Your task to perform on an android device: turn off translation in the chrome app Image 0: 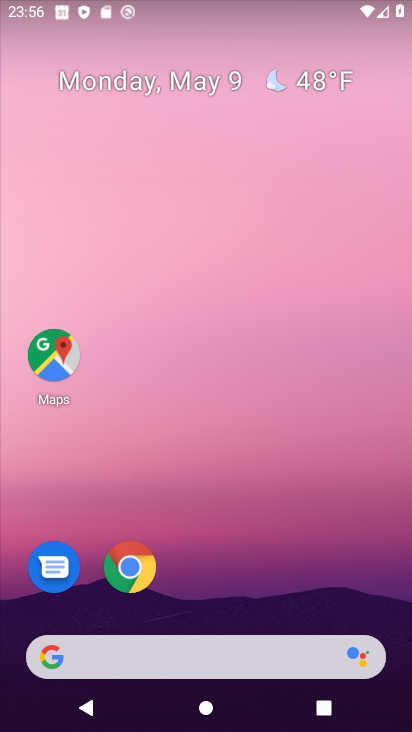
Step 0: click (132, 564)
Your task to perform on an android device: turn off translation in the chrome app Image 1: 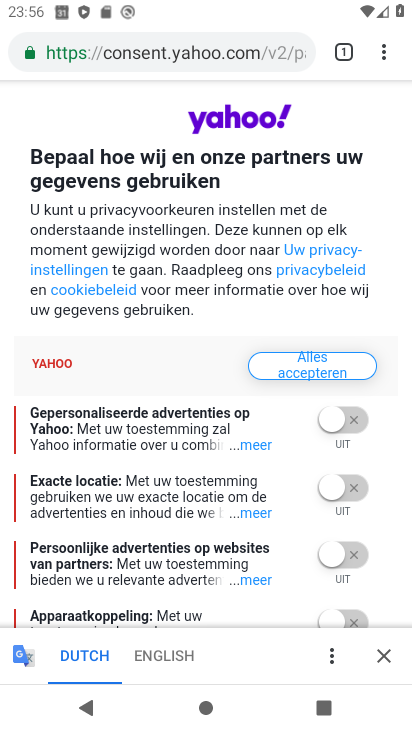
Step 1: click (381, 52)
Your task to perform on an android device: turn off translation in the chrome app Image 2: 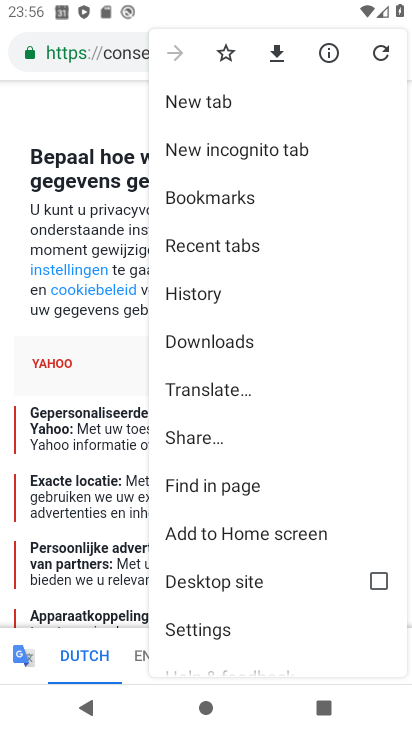
Step 2: click (212, 629)
Your task to perform on an android device: turn off translation in the chrome app Image 3: 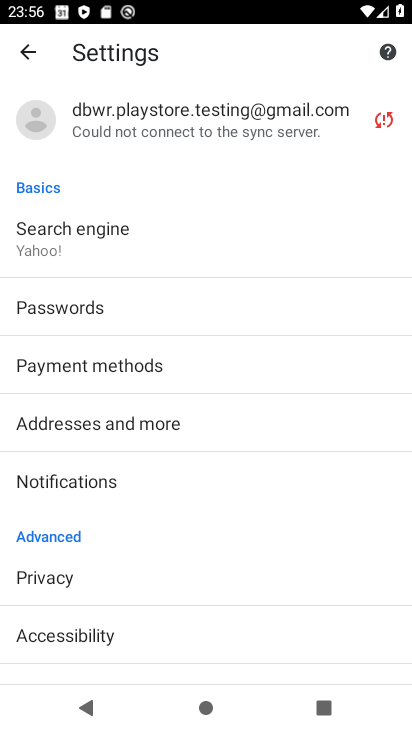
Step 3: drag from (116, 548) to (160, 434)
Your task to perform on an android device: turn off translation in the chrome app Image 4: 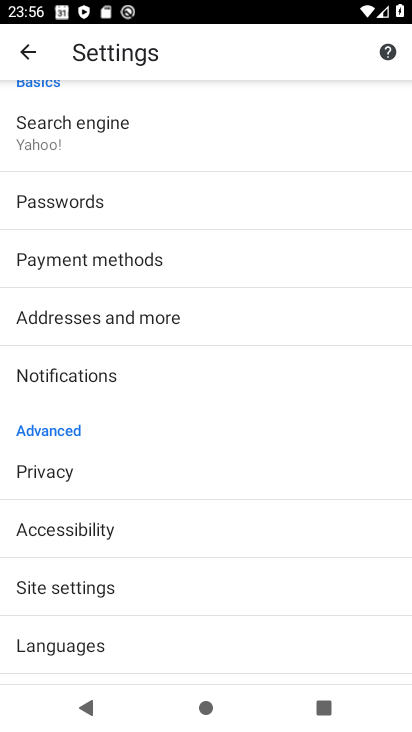
Step 4: drag from (102, 437) to (169, 334)
Your task to perform on an android device: turn off translation in the chrome app Image 5: 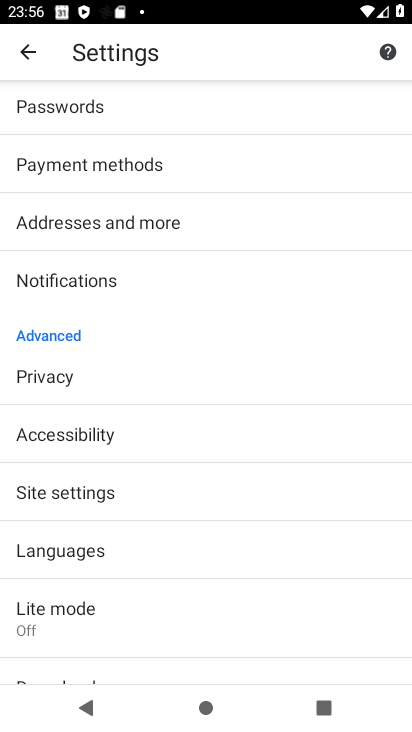
Step 5: click (71, 548)
Your task to perform on an android device: turn off translation in the chrome app Image 6: 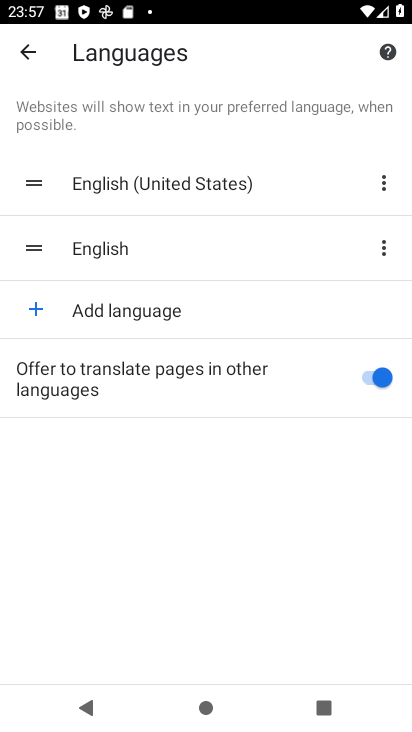
Step 6: click (378, 379)
Your task to perform on an android device: turn off translation in the chrome app Image 7: 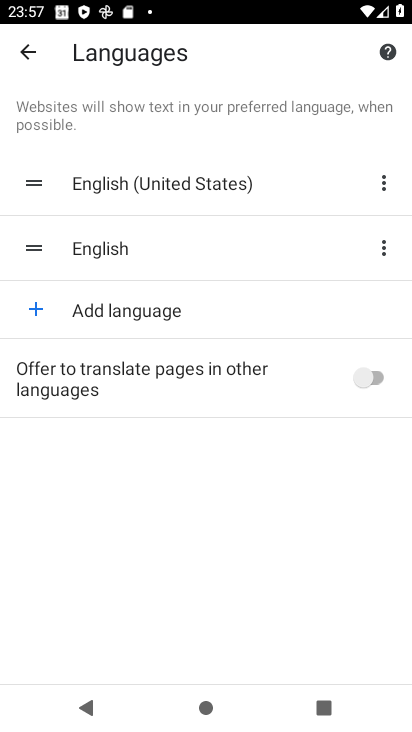
Step 7: task complete